Your task to perform on an android device: open a bookmark in the chrome app Image 0: 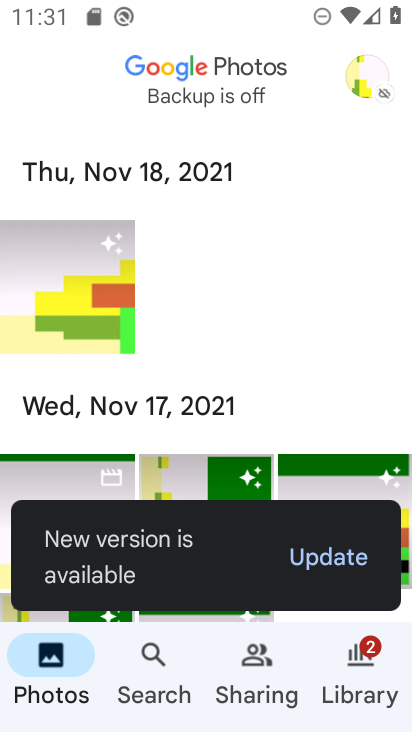
Step 0: press home button
Your task to perform on an android device: open a bookmark in the chrome app Image 1: 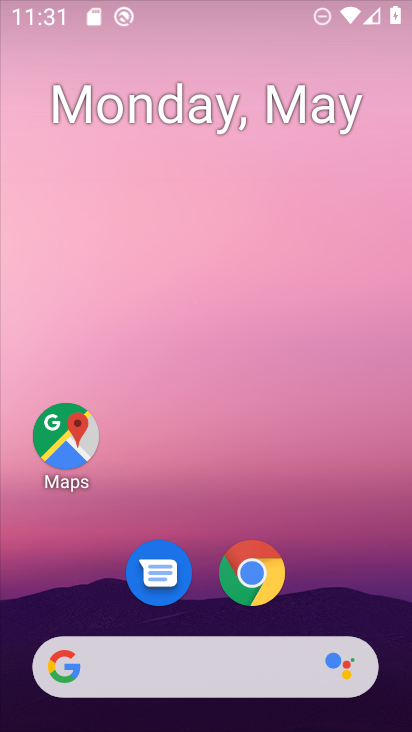
Step 1: click (253, 576)
Your task to perform on an android device: open a bookmark in the chrome app Image 2: 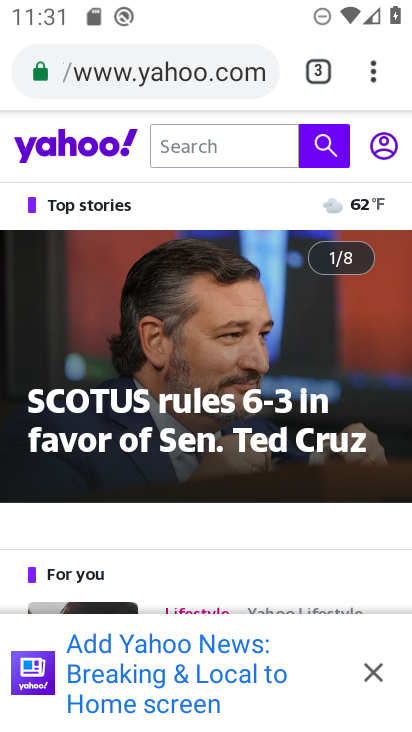
Step 2: click (374, 51)
Your task to perform on an android device: open a bookmark in the chrome app Image 3: 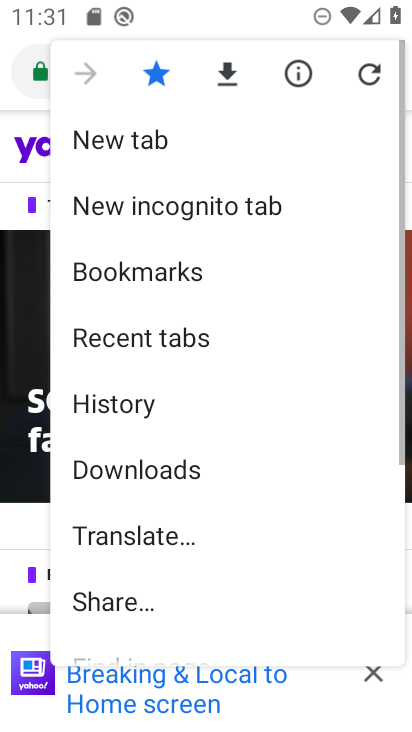
Step 3: click (225, 271)
Your task to perform on an android device: open a bookmark in the chrome app Image 4: 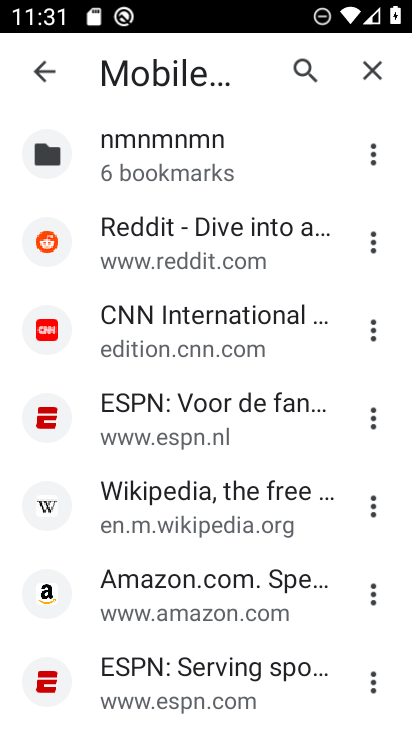
Step 4: click (243, 268)
Your task to perform on an android device: open a bookmark in the chrome app Image 5: 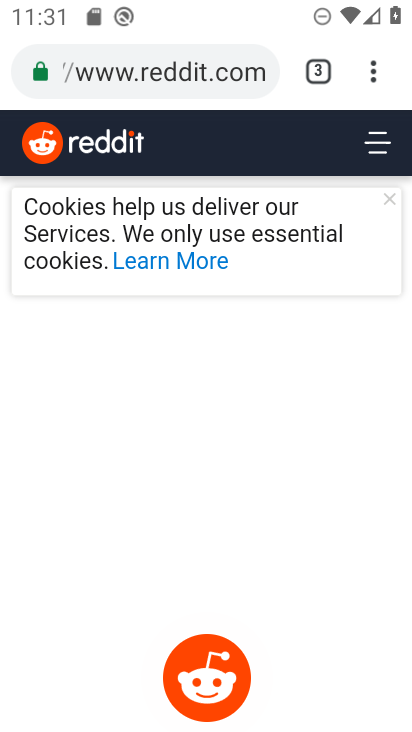
Step 5: task complete